Your task to perform on an android device: Open the map Image 0: 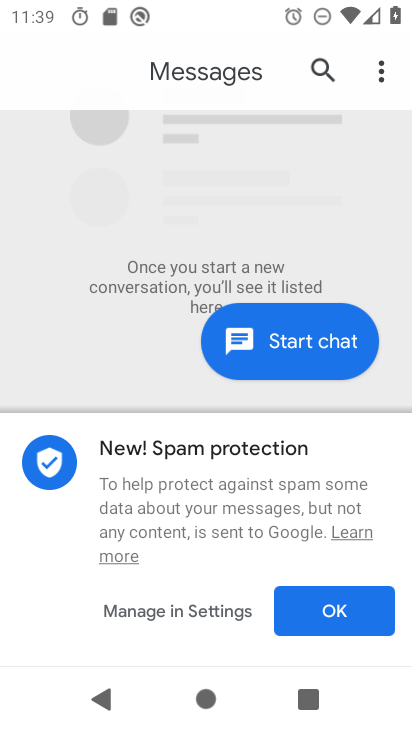
Step 0: press home button
Your task to perform on an android device: Open the map Image 1: 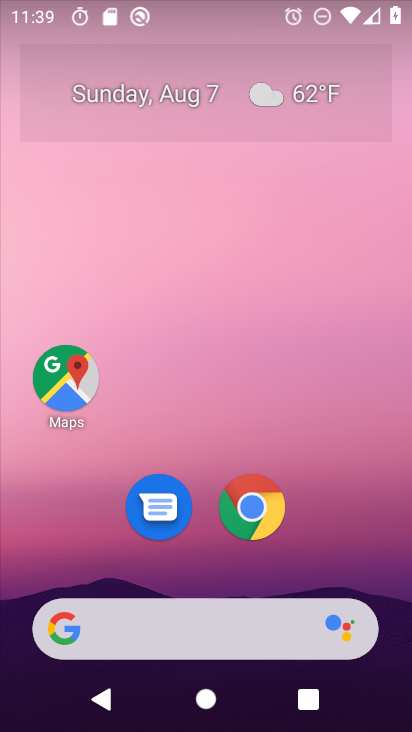
Step 1: drag from (356, 525) to (315, 38)
Your task to perform on an android device: Open the map Image 2: 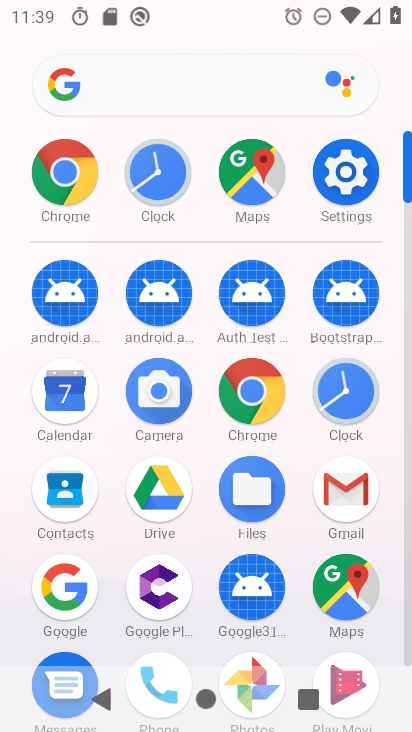
Step 2: click (351, 581)
Your task to perform on an android device: Open the map Image 3: 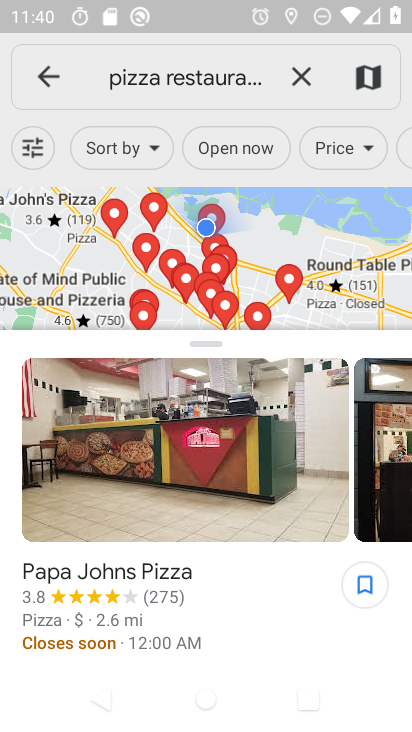
Step 3: task complete